Your task to perform on an android device: When is my next appointment? Image 0: 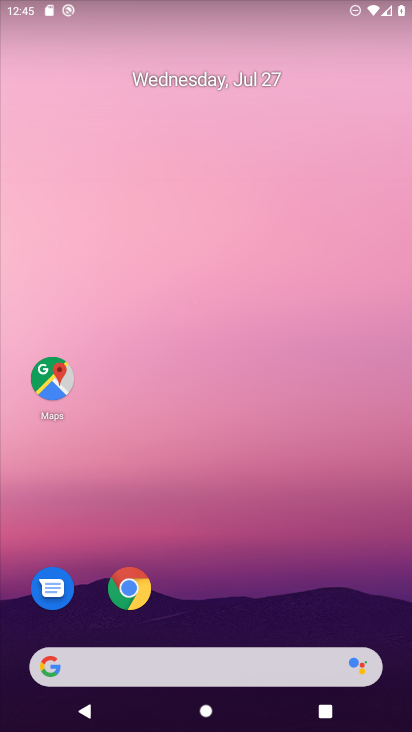
Step 0: drag from (25, 699) to (362, 2)
Your task to perform on an android device: When is my next appointment? Image 1: 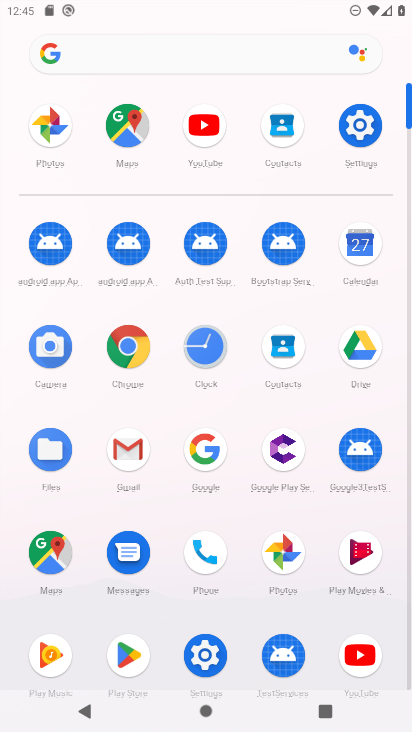
Step 1: click (358, 267)
Your task to perform on an android device: When is my next appointment? Image 2: 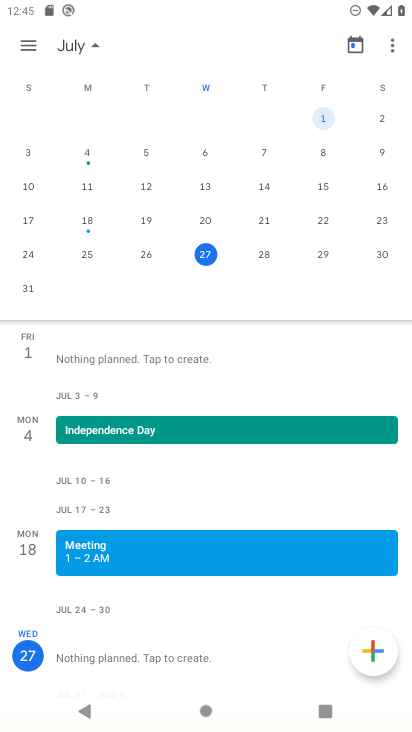
Step 2: task complete